Your task to perform on an android device: turn on javascript in the chrome app Image 0: 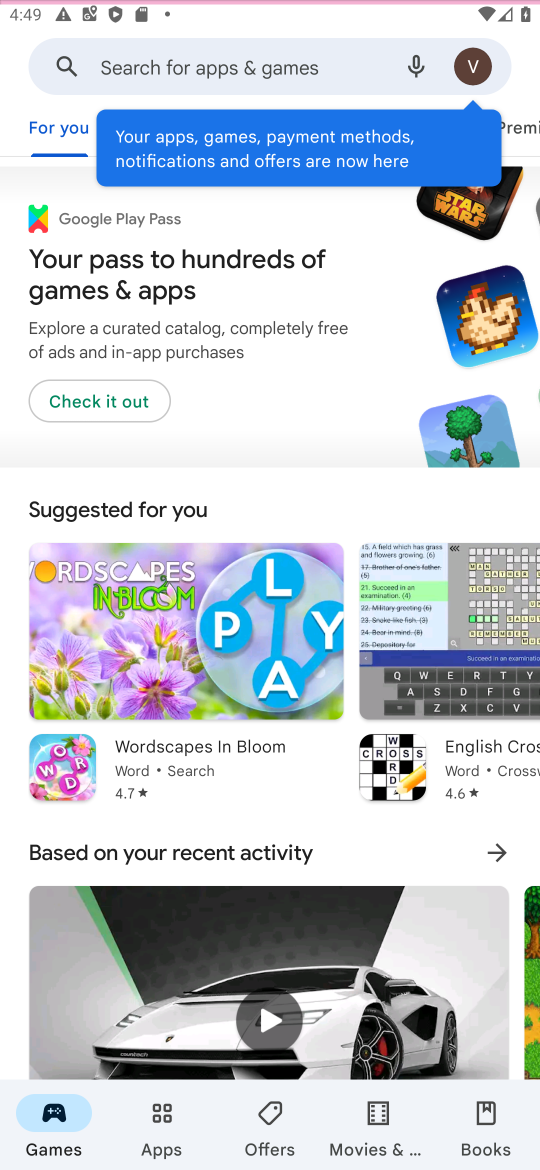
Step 0: press home button
Your task to perform on an android device: turn on javascript in the chrome app Image 1: 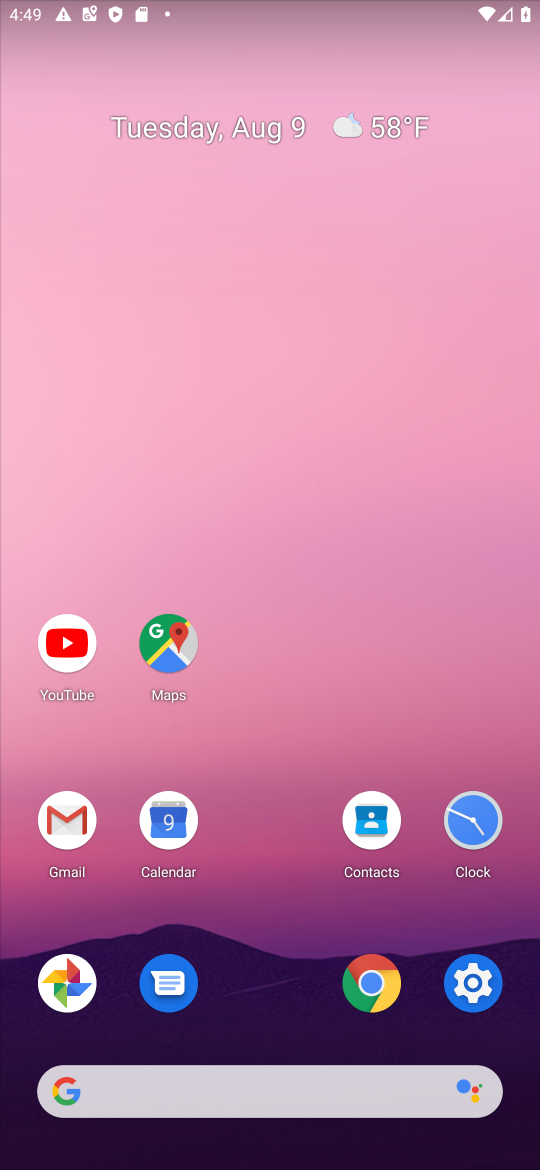
Step 1: click (365, 990)
Your task to perform on an android device: turn on javascript in the chrome app Image 2: 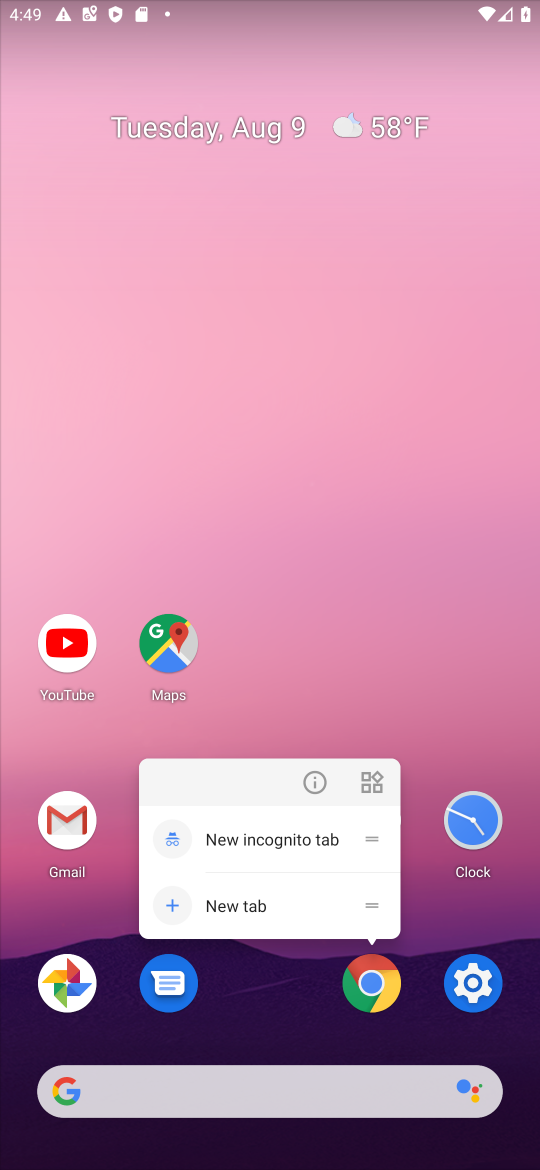
Step 2: click (379, 980)
Your task to perform on an android device: turn on javascript in the chrome app Image 3: 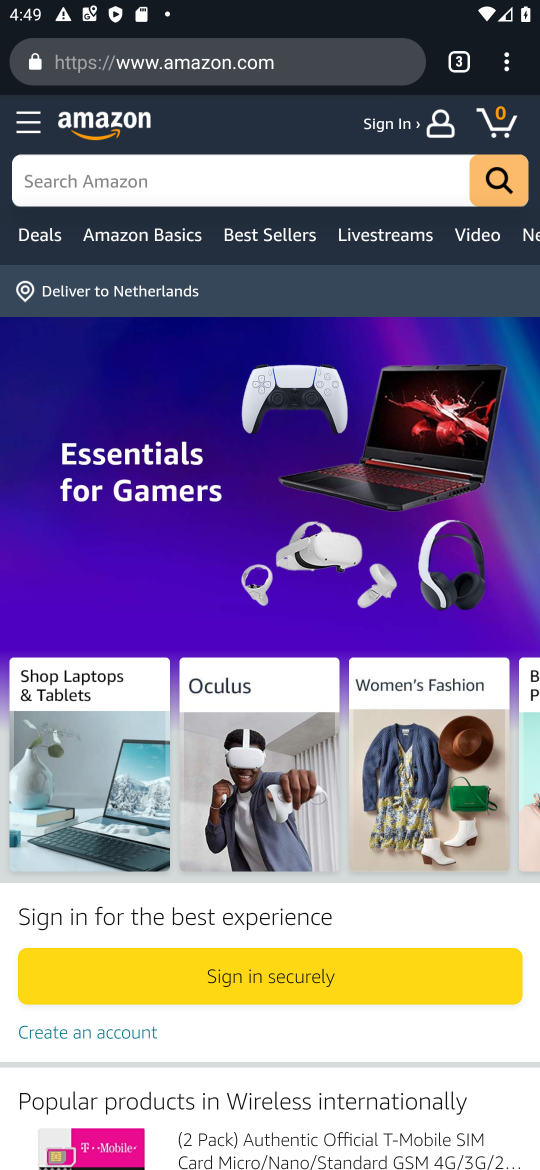
Step 3: click (507, 64)
Your task to perform on an android device: turn on javascript in the chrome app Image 4: 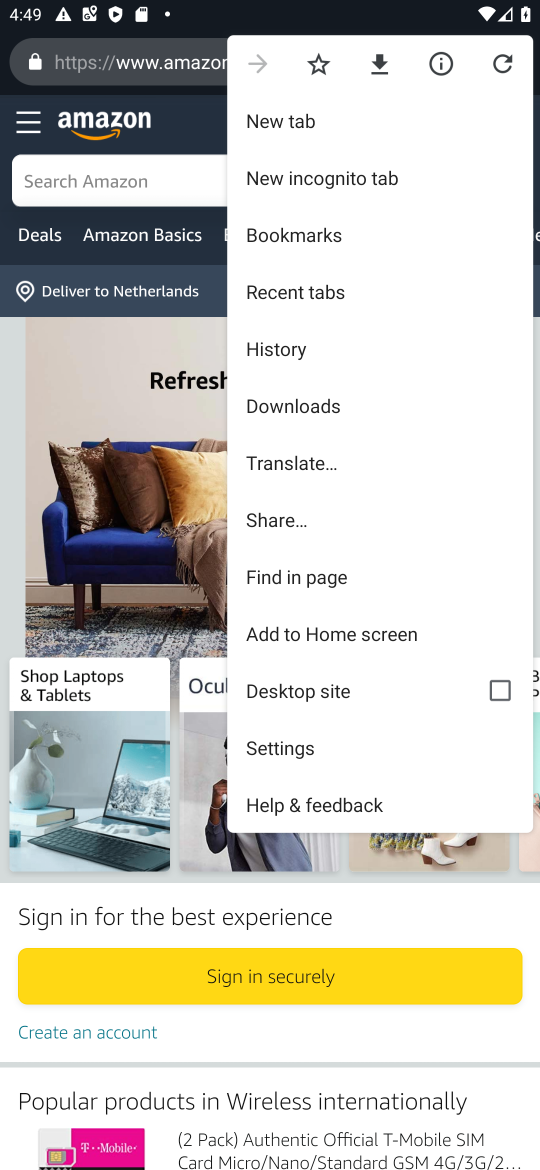
Step 4: click (287, 739)
Your task to perform on an android device: turn on javascript in the chrome app Image 5: 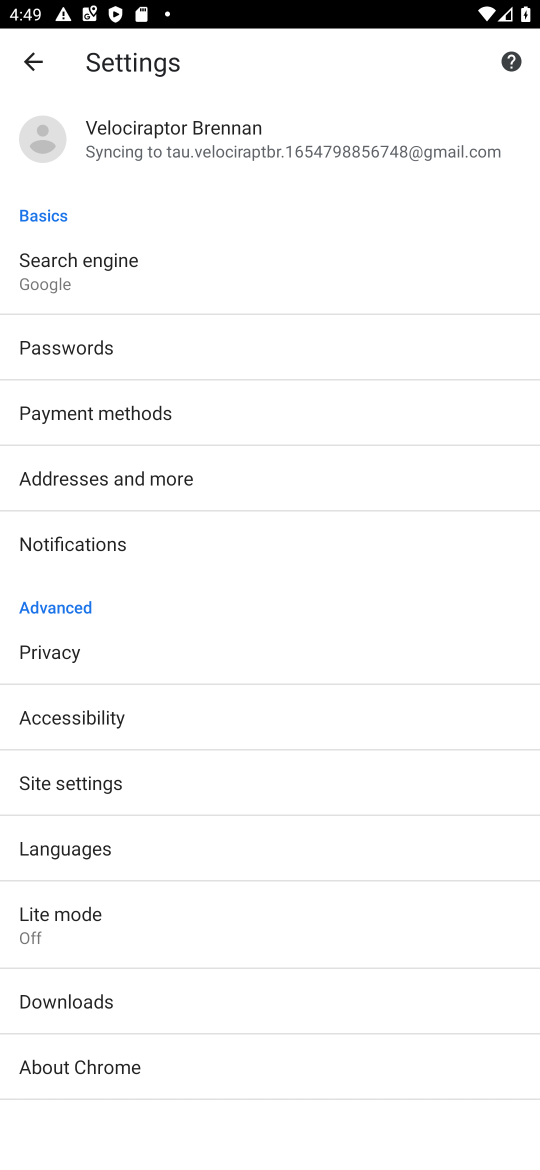
Step 5: click (73, 780)
Your task to perform on an android device: turn on javascript in the chrome app Image 6: 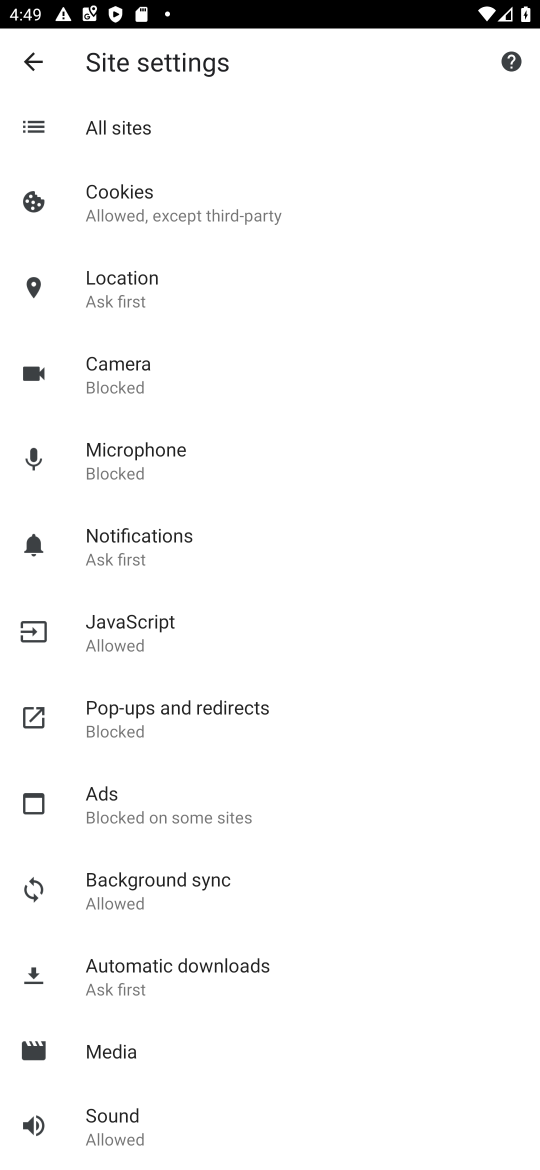
Step 6: click (152, 617)
Your task to perform on an android device: turn on javascript in the chrome app Image 7: 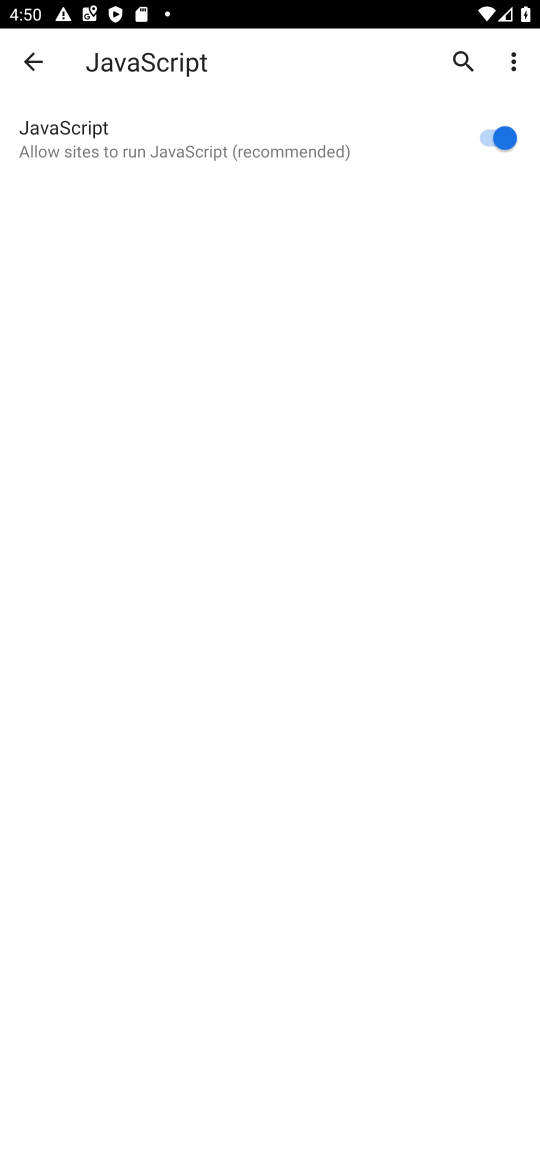
Step 7: task complete